Your task to perform on an android device: turn on priority inbox in the gmail app Image 0: 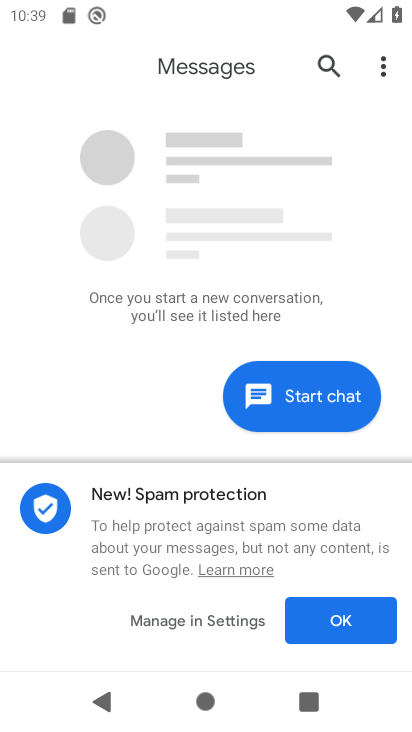
Step 0: press home button
Your task to perform on an android device: turn on priority inbox in the gmail app Image 1: 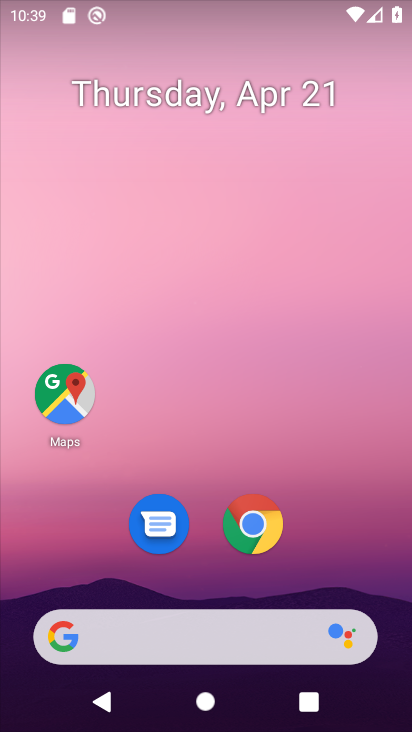
Step 1: drag from (351, 531) to (345, 105)
Your task to perform on an android device: turn on priority inbox in the gmail app Image 2: 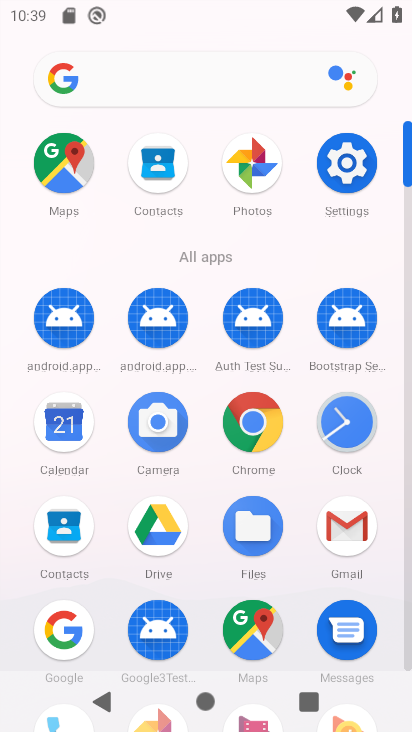
Step 2: click (352, 523)
Your task to perform on an android device: turn on priority inbox in the gmail app Image 3: 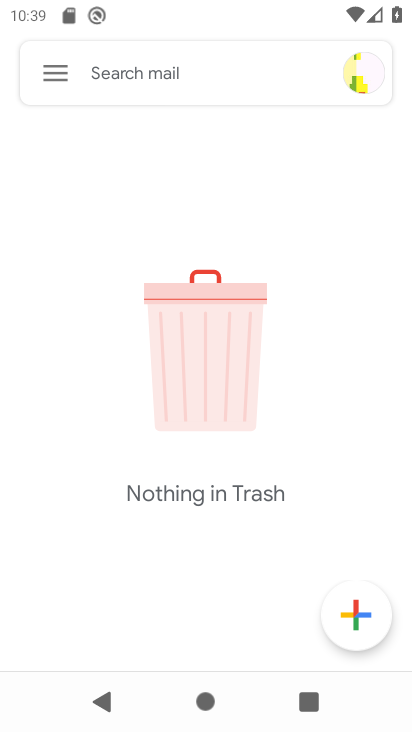
Step 3: click (58, 74)
Your task to perform on an android device: turn on priority inbox in the gmail app Image 4: 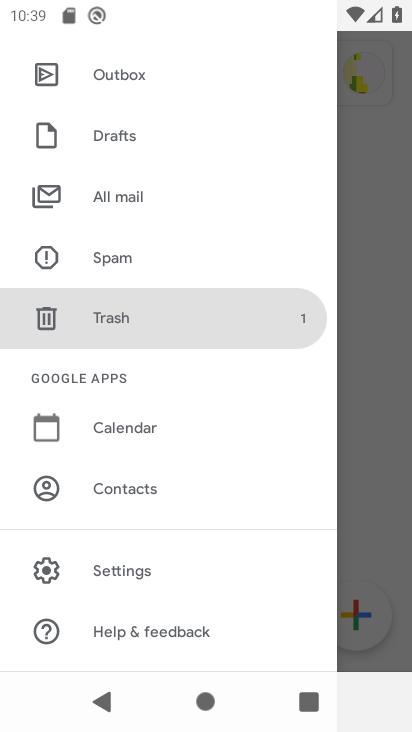
Step 4: click (139, 568)
Your task to perform on an android device: turn on priority inbox in the gmail app Image 5: 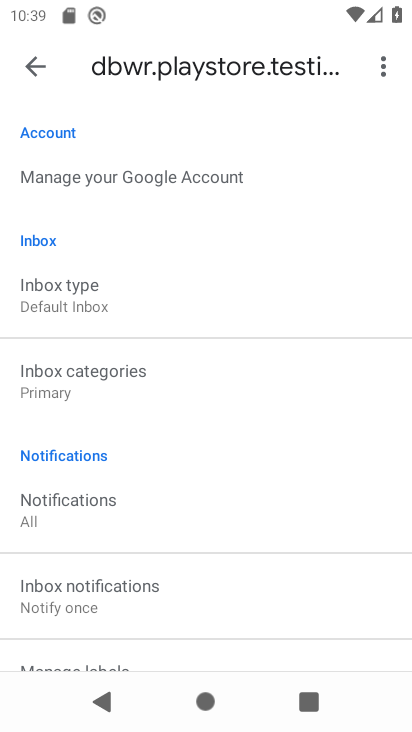
Step 5: click (71, 287)
Your task to perform on an android device: turn on priority inbox in the gmail app Image 6: 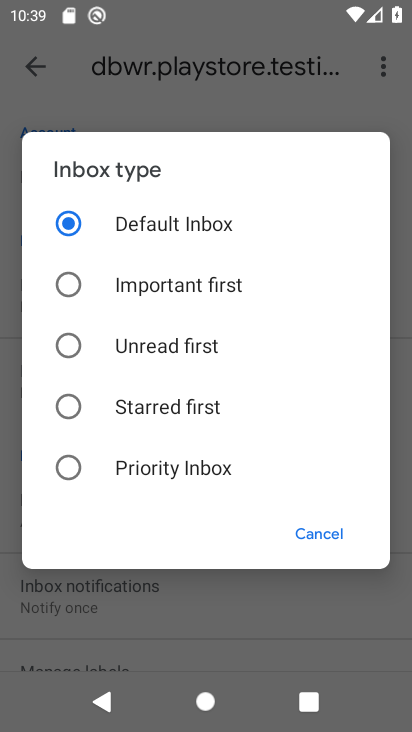
Step 6: click (67, 454)
Your task to perform on an android device: turn on priority inbox in the gmail app Image 7: 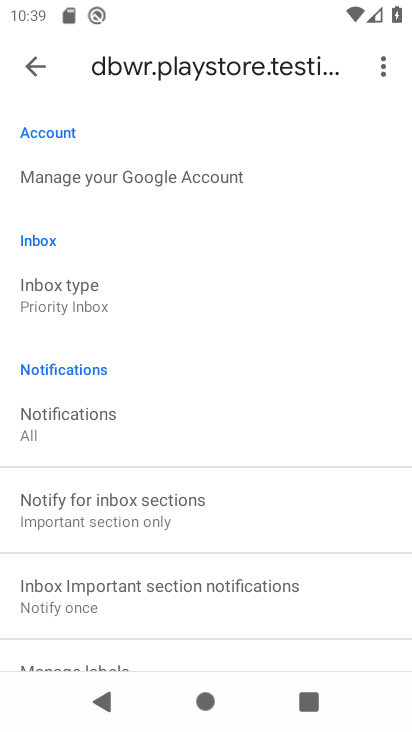
Step 7: task complete